Your task to perform on an android device: open app "Clock" (install if not already installed) Image 0: 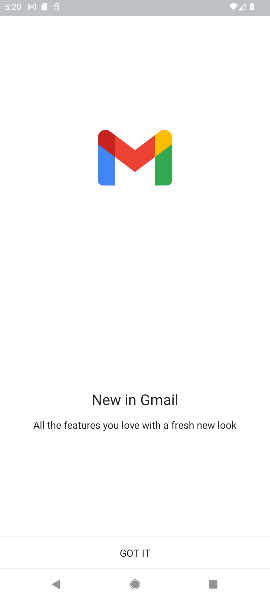
Step 0: press home button
Your task to perform on an android device: open app "Clock" (install if not already installed) Image 1: 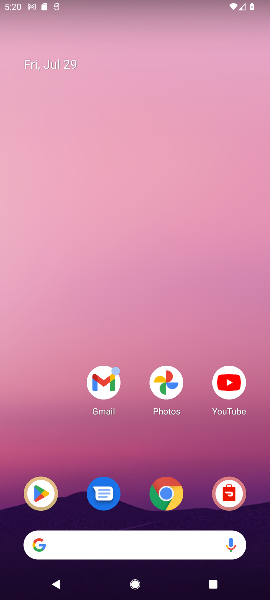
Step 1: drag from (174, 595) to (172, 72)
Your task to perform on an android device: open app "Clock" (install if not already installed) Image 2: 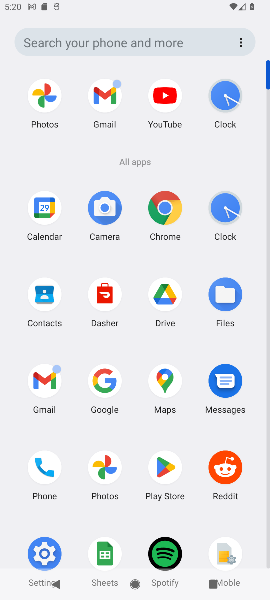
Step 2: click (222, 207)
Your task to perform on an android device: open app "Clock" (install if not already installed) Image 3: 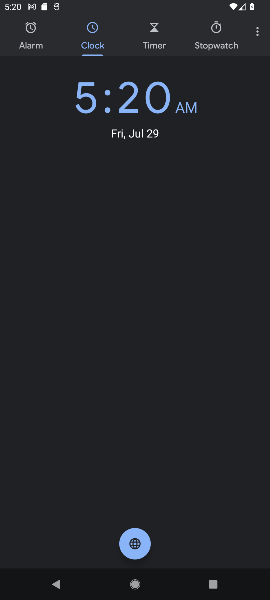
Step 3: task complete